Your task to perform on an android device: When is my next meeting? Image 0: 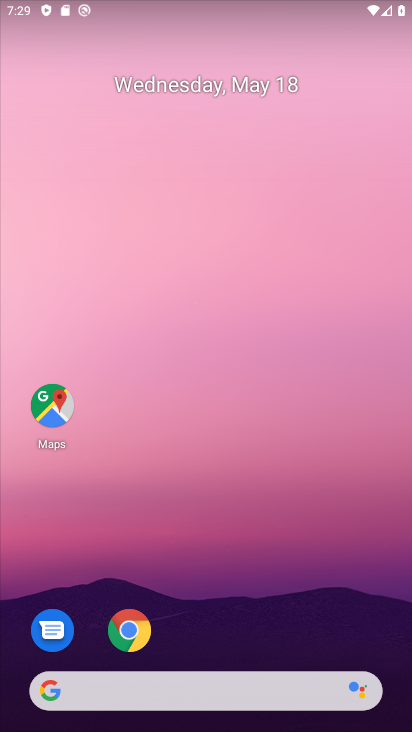
Step 0: drag from (266, 583) to (203, 183)
Your task to perform on an android device: When is my next meeting? Image 1: 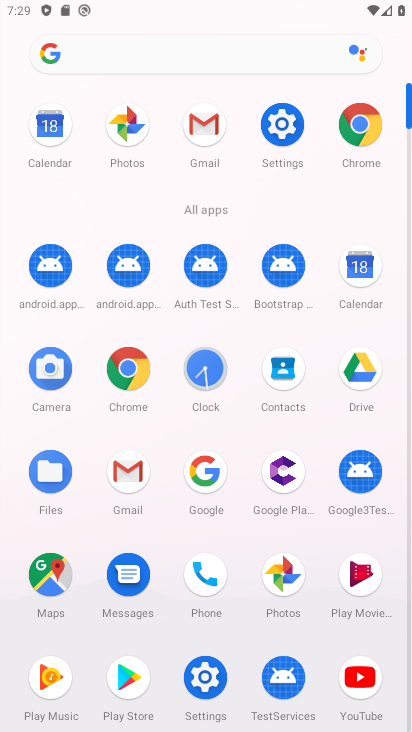
Step 1: click (367, 277)
Your task to perform on an android device: When is my next meeting? Image 2: 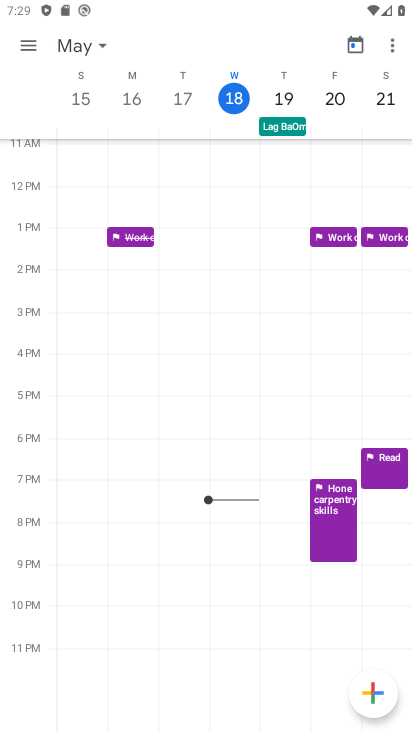
Step 2: task complete